Your task to perform on an android device: Search for sushi restaurants on Maps Image 0: 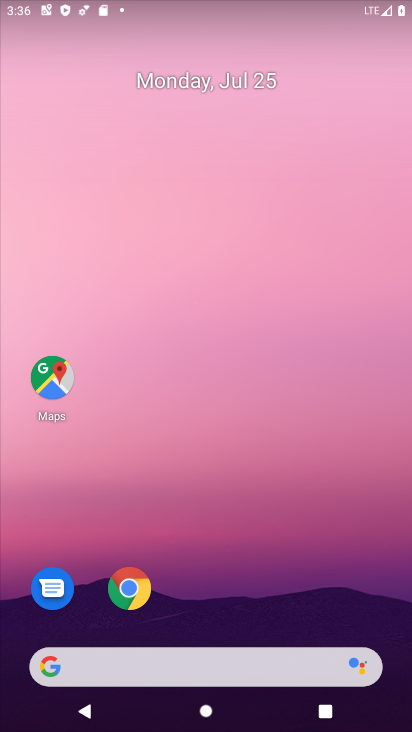
Step 0: click (44, 405)
Your task to perform on an android device: Search for sushi restaurants on Maps Image 1: 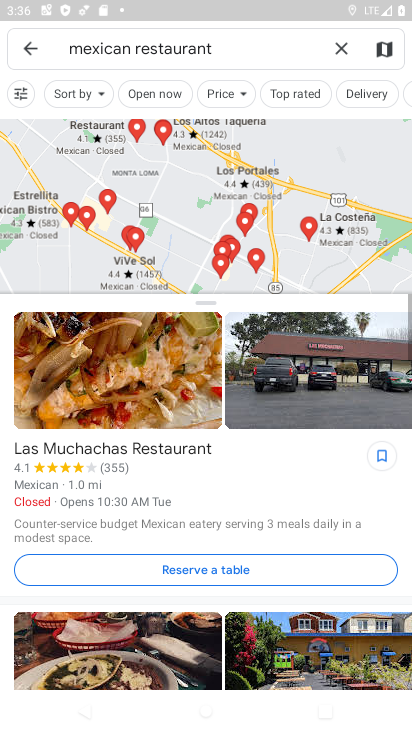
Step 1: click (337, 50)
Your task to perform on an android device: Search for sushi restaurants on Maps Image 2: 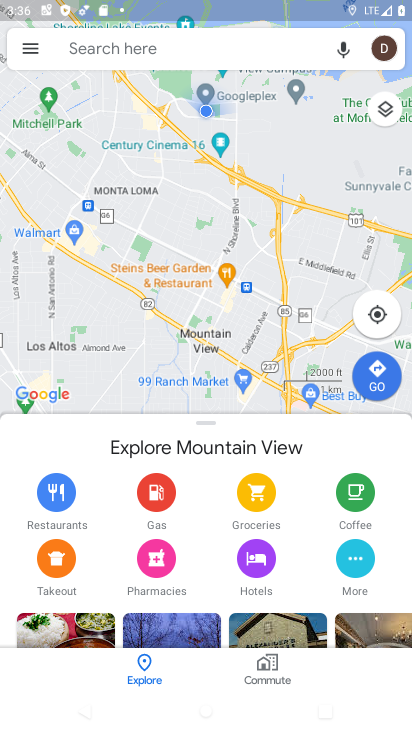
Step 2: click (144, 62)
Your task to perform on an android device: Search for sushi restaurants on Maps Image 3: 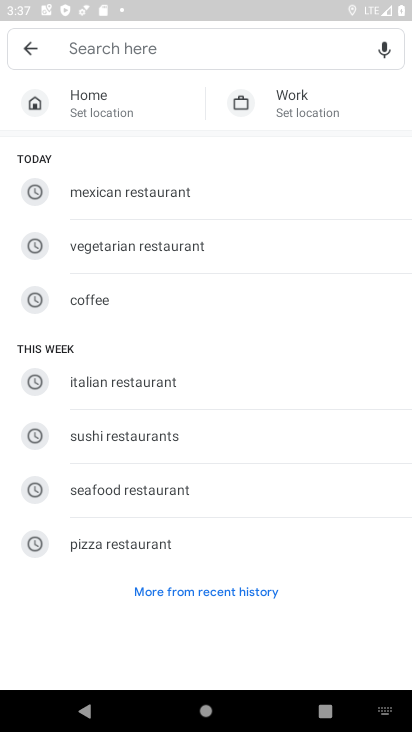
Step 3: click (161, 439)
Your task to perform on an android device: Search for sushi restaurants on Maps Image 4: 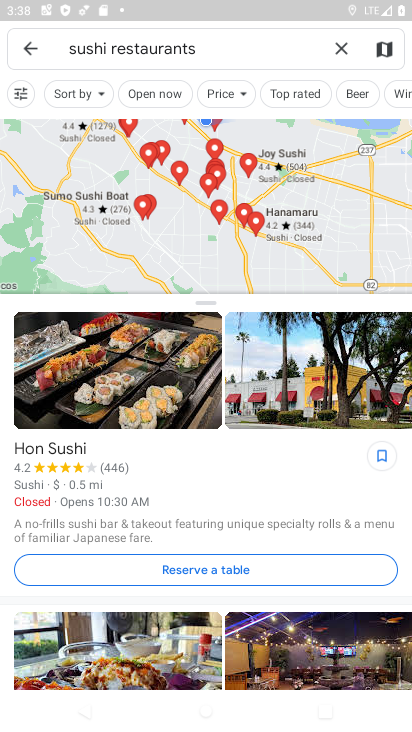
Step 4: task complete